Your task to perform on an android device: Open eBay Image 0: 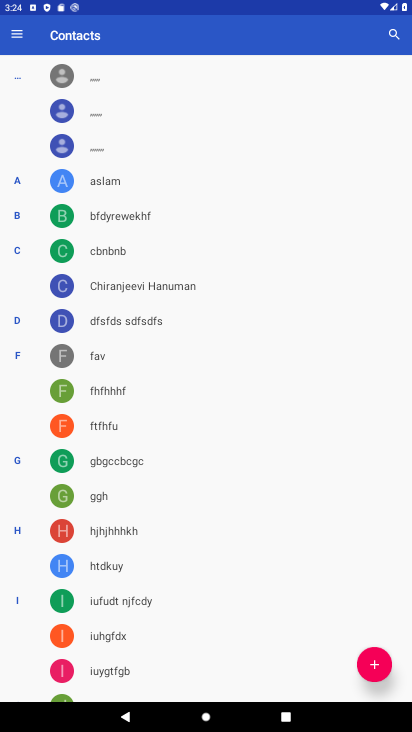
Step 0: press home button
Your task to perform on an android device: Open eBay Image 1: 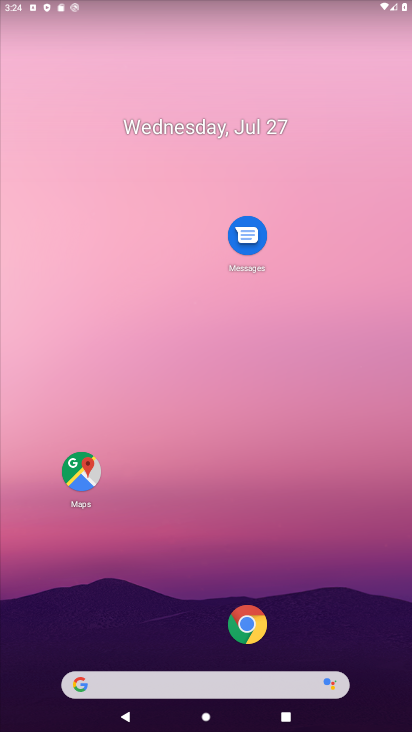
Step 1: click (232, 619)
Your task to perform on an android device: Open eBay Image 2: 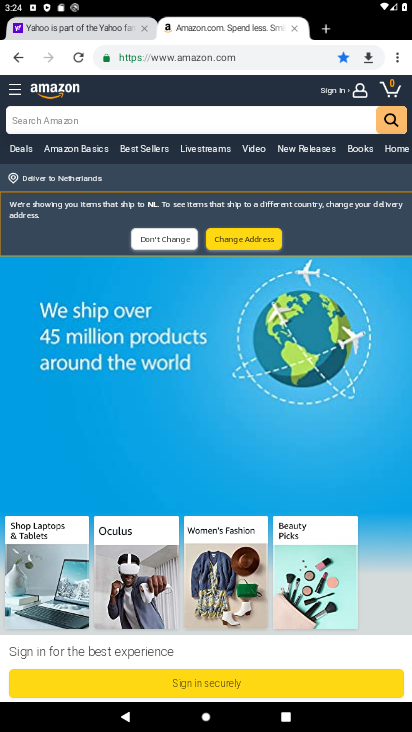
Step 2: click (327, 36)
Your task to perform on an android device: Open eBay Image 3: 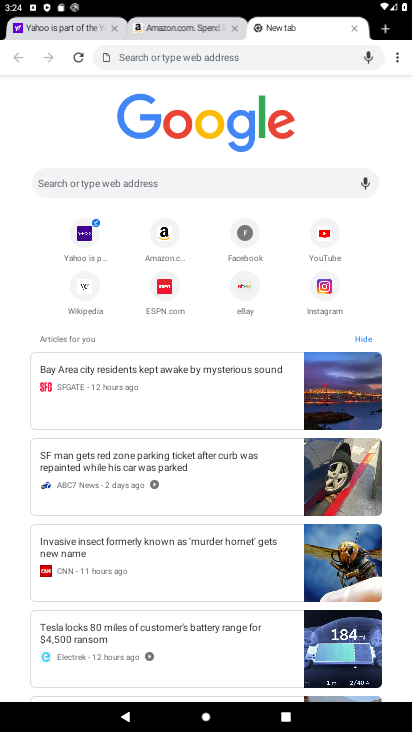
Step 3: click (238, 284)
Your task to perform on an android device: Open eBay Image 4: 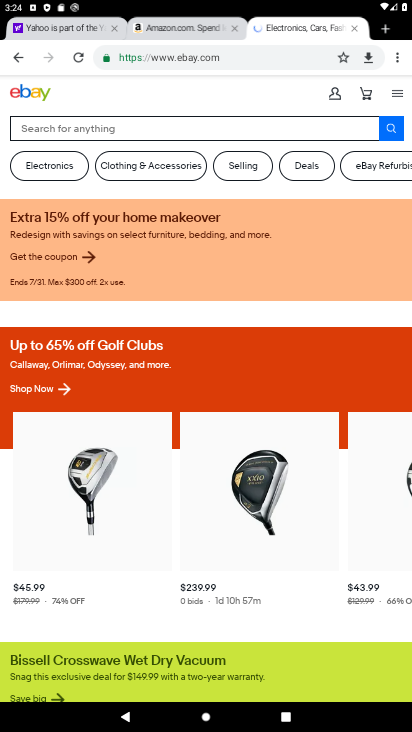
Step 4: task complete